Your task to perform on an android device: open a new tab in the chrome app Image 0: 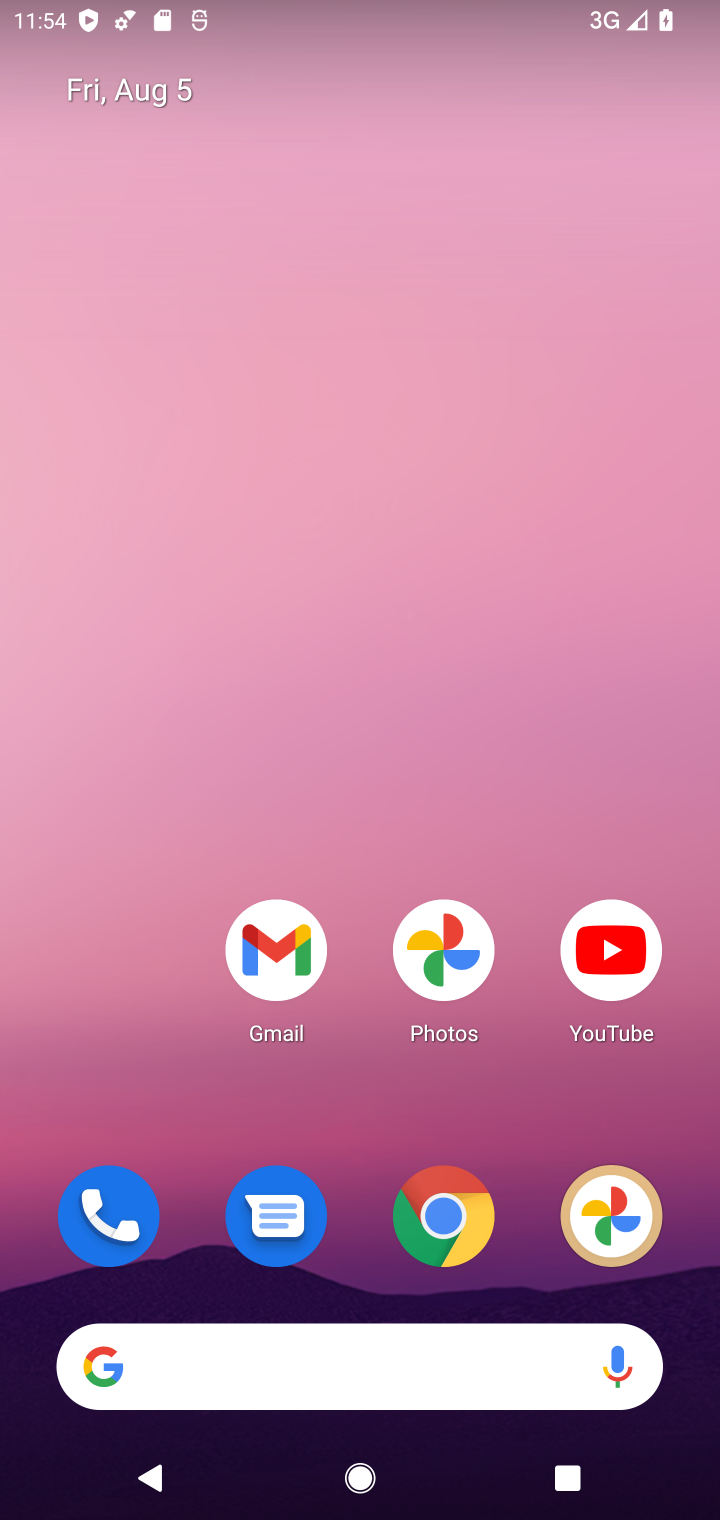
Step 0: drag from (460, 1338) to (557, 1025)
Your task to perform on an android device: open a new tab in the chrome app Image 1: 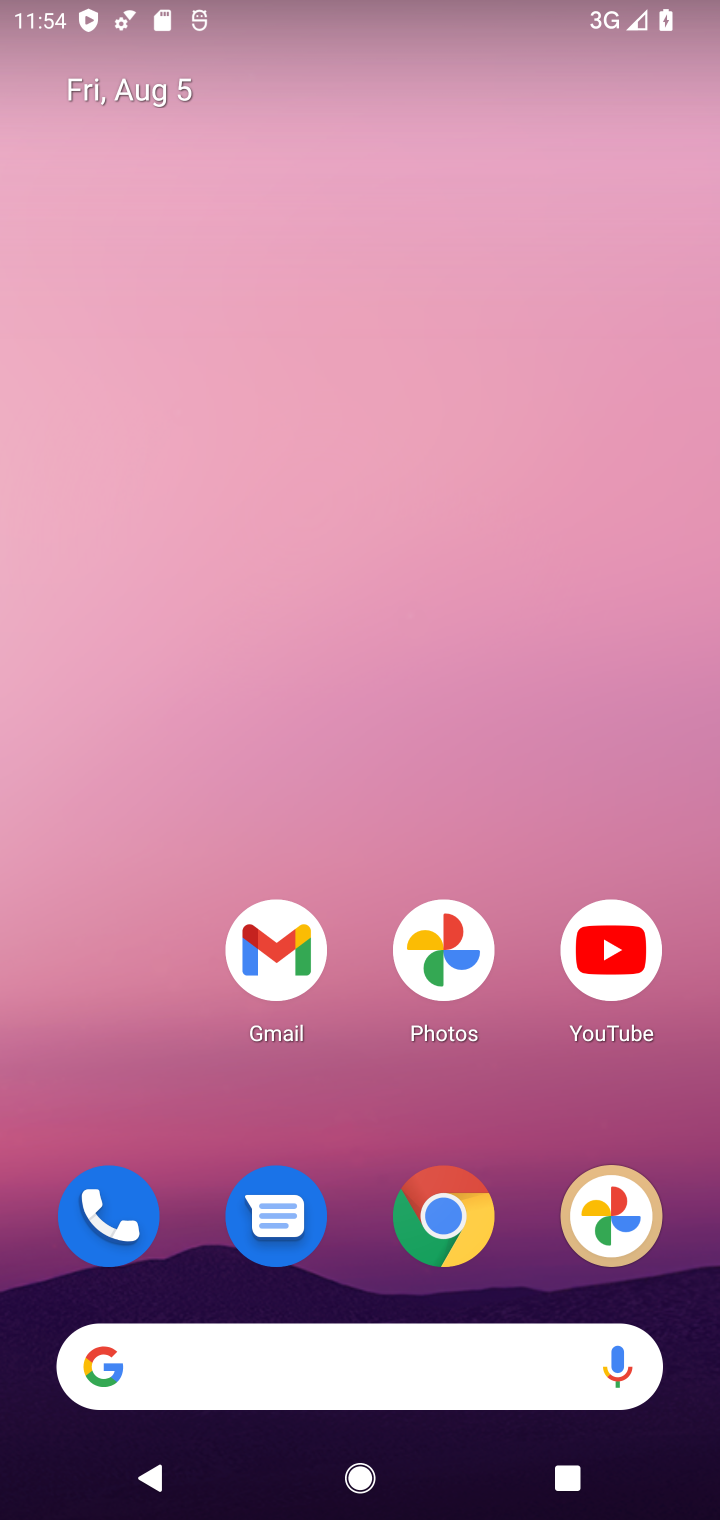
Step 1: click (462, 1227)
Your task to perform on an android device: open a new tab in the chrome app Image 2: 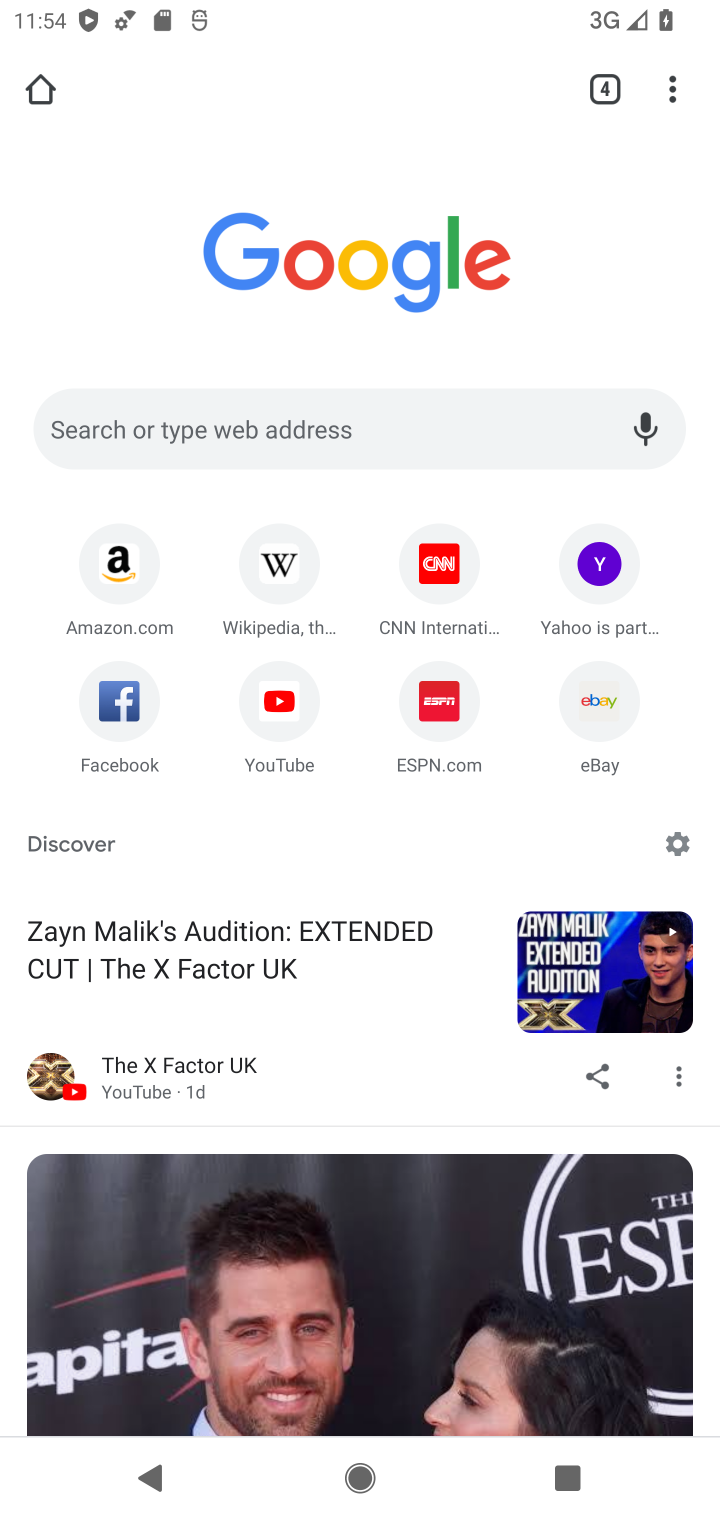
Step 2: click (666, 80)
Your task to perform on an android device: open a new tab in the chrome app Image 3: 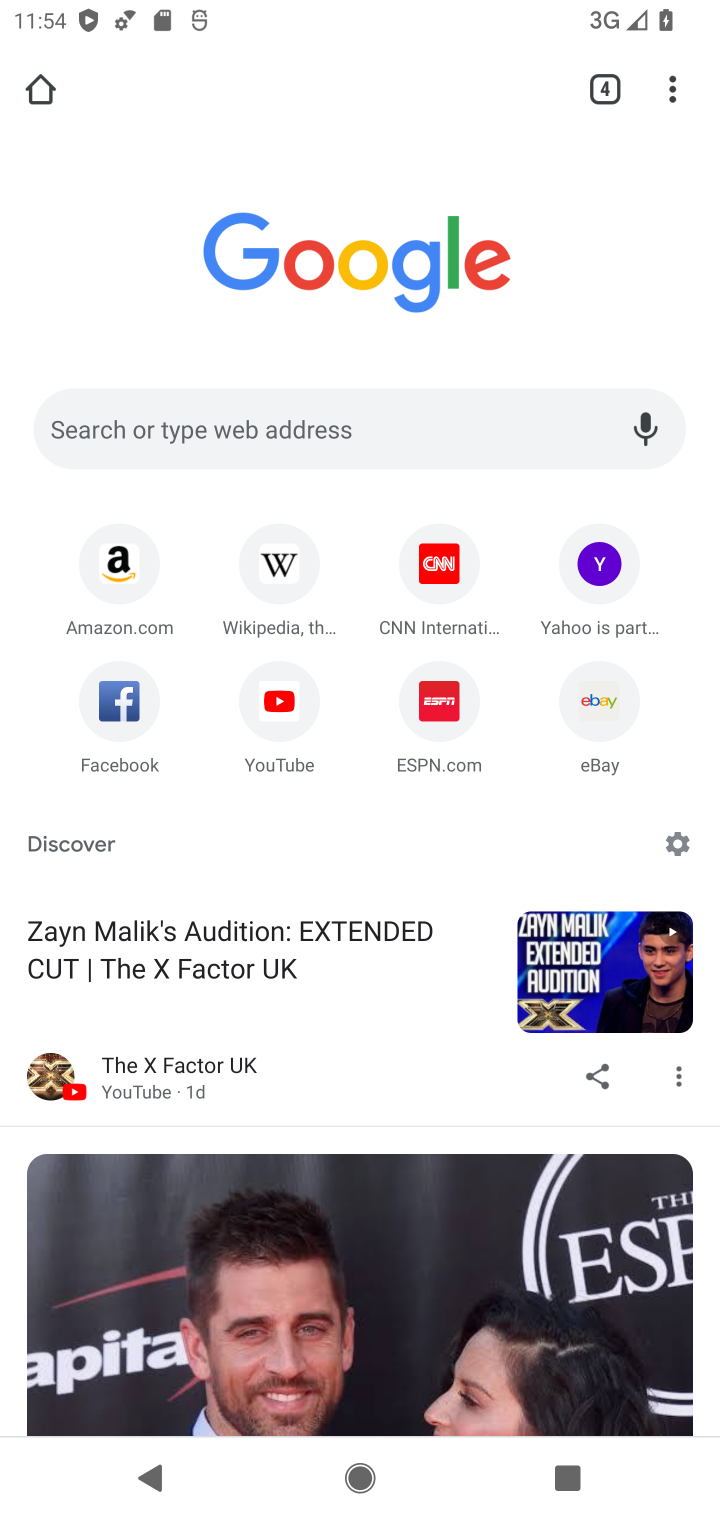
Step 3: click (666, 80)
Your task to perform on an android device: open a new tab in the chrome app Image 4: 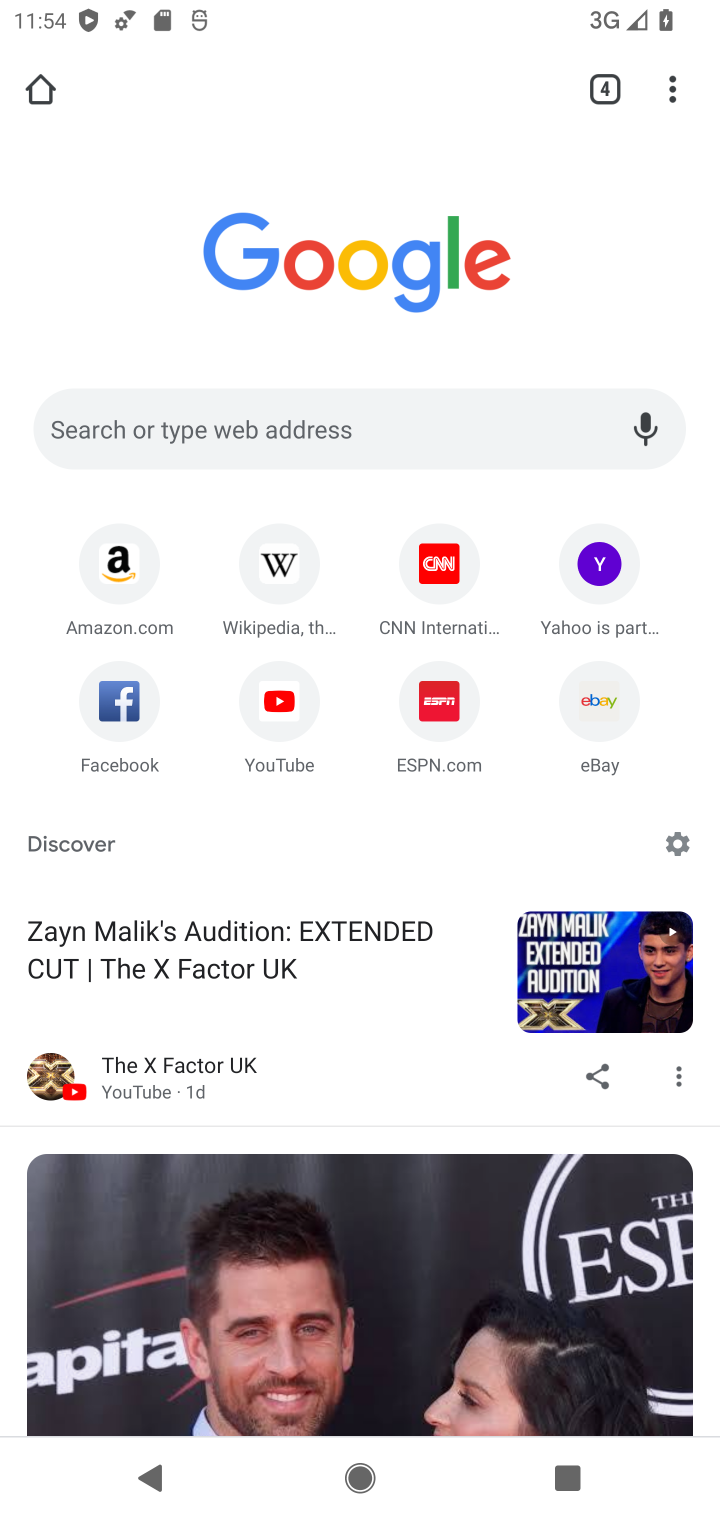
Step 4: drag from (666, 88) to (461, 280)
Your task to perform on an android device: open a new tab in the chrome app Image 5: 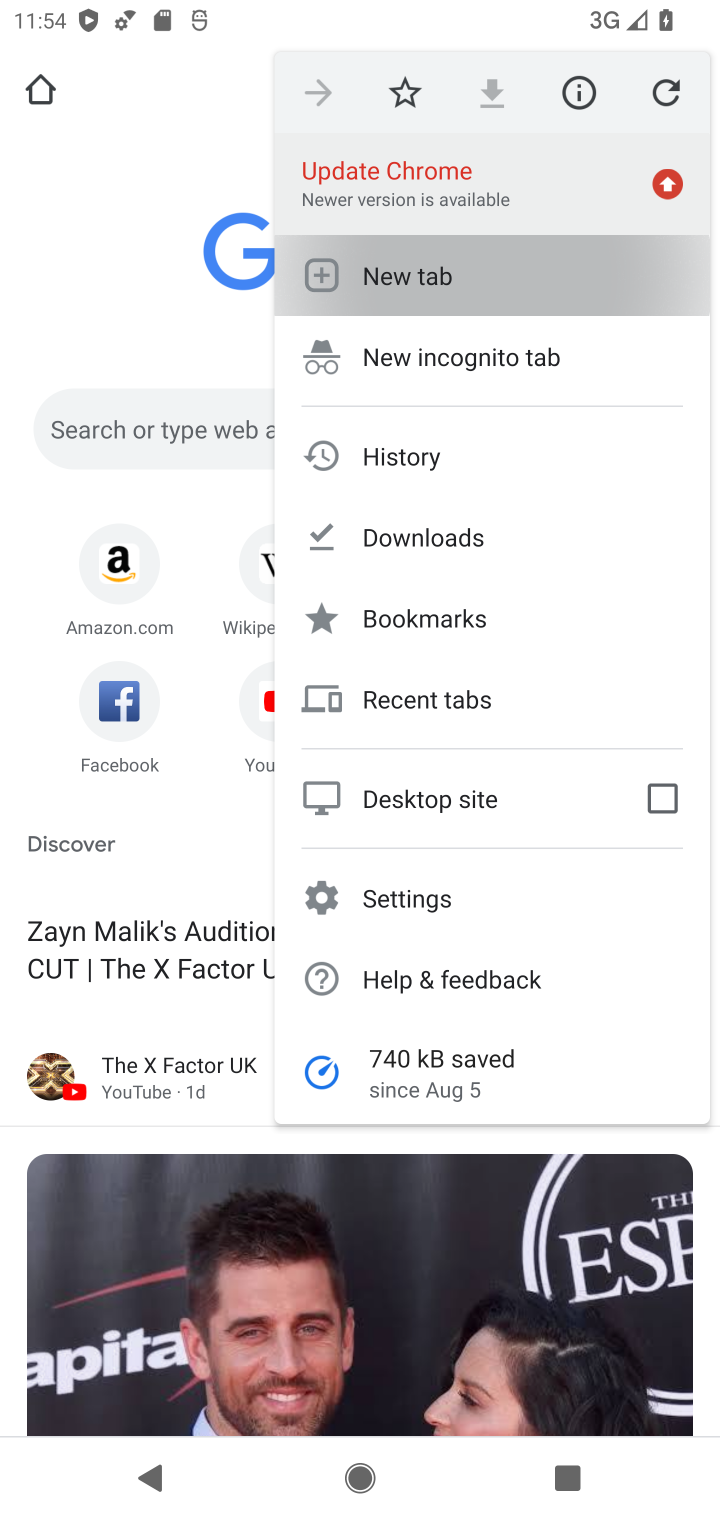
Step 5: click (461, 280)
Your task to perform on an android device: open a new tab in the chrome app Image 6: 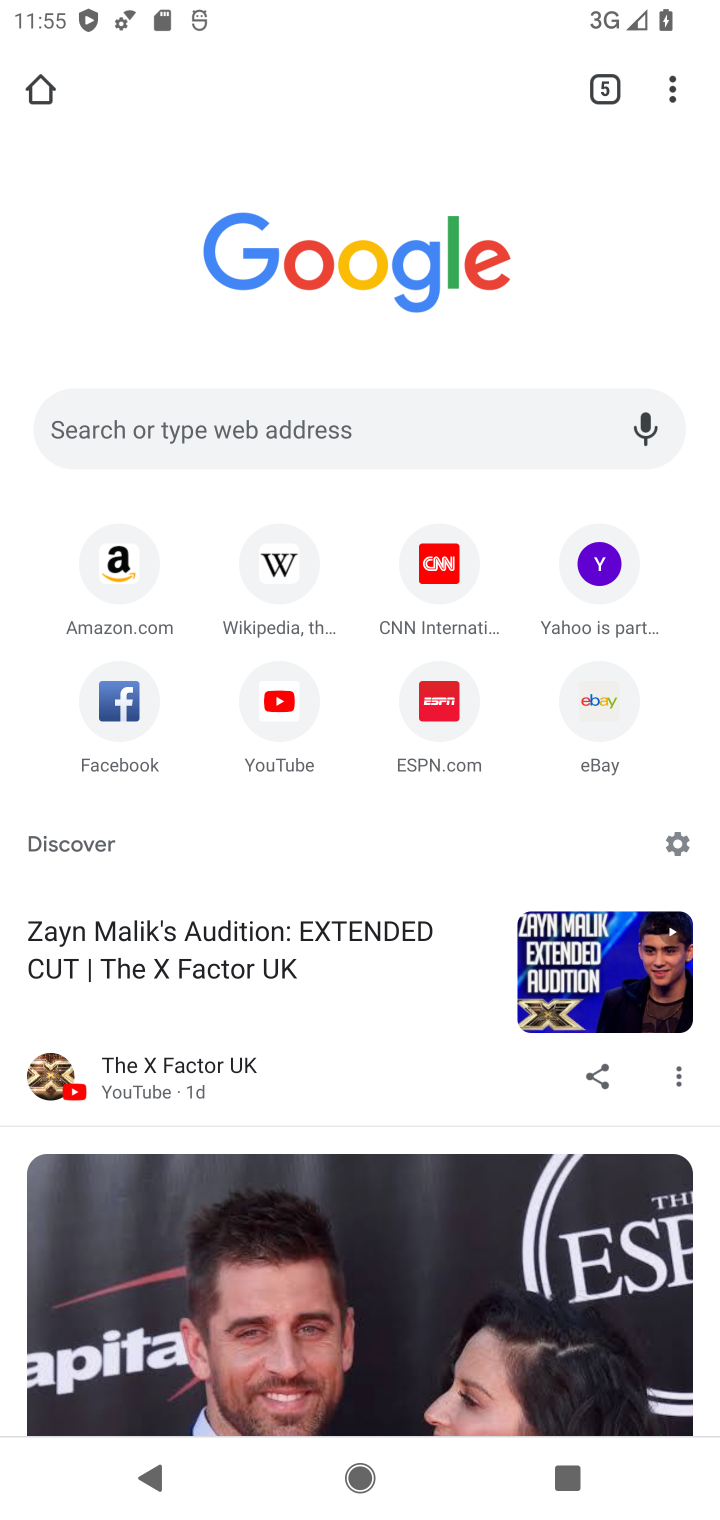
Step 6: task complete